Your task to perform on an android device: What is the average speed of a car? Image 0: 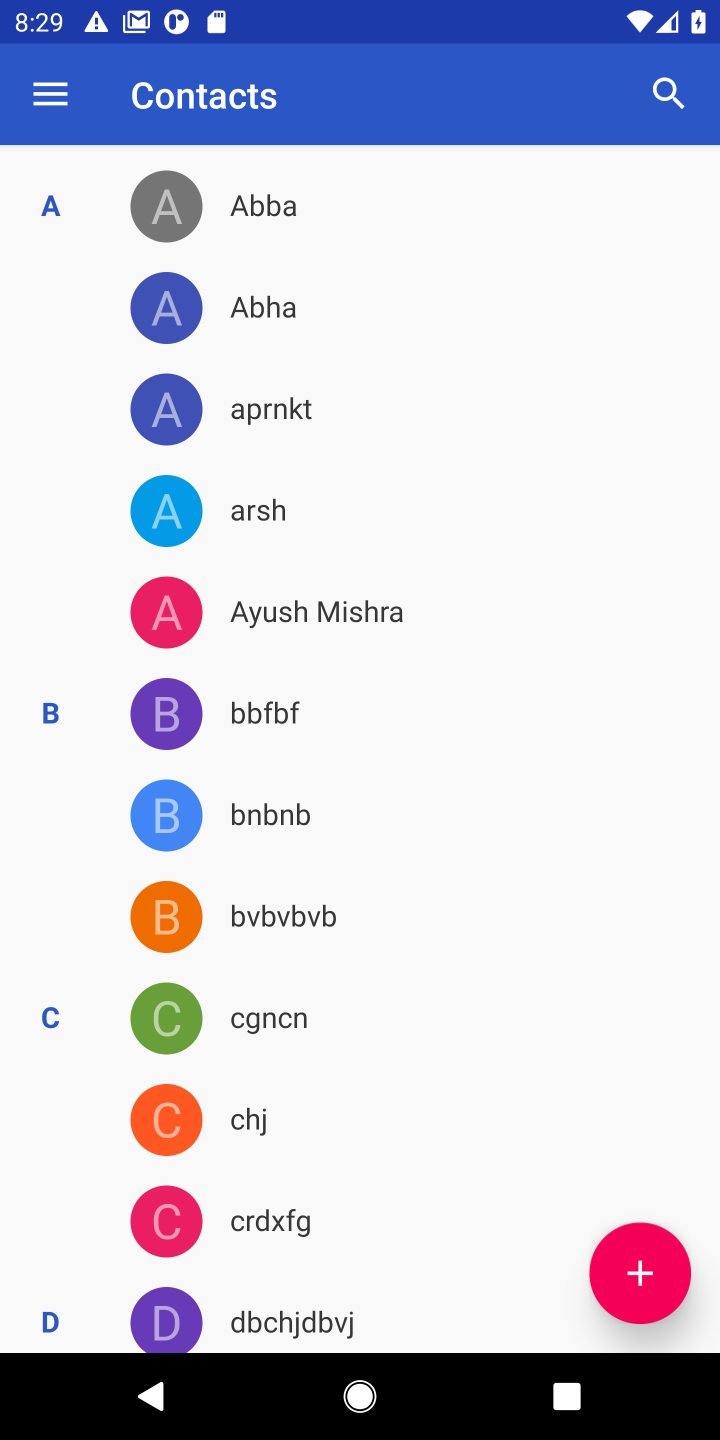
Step 0: press home button
Your task to perform on an android device: What is the average speed of a car? Image 1: 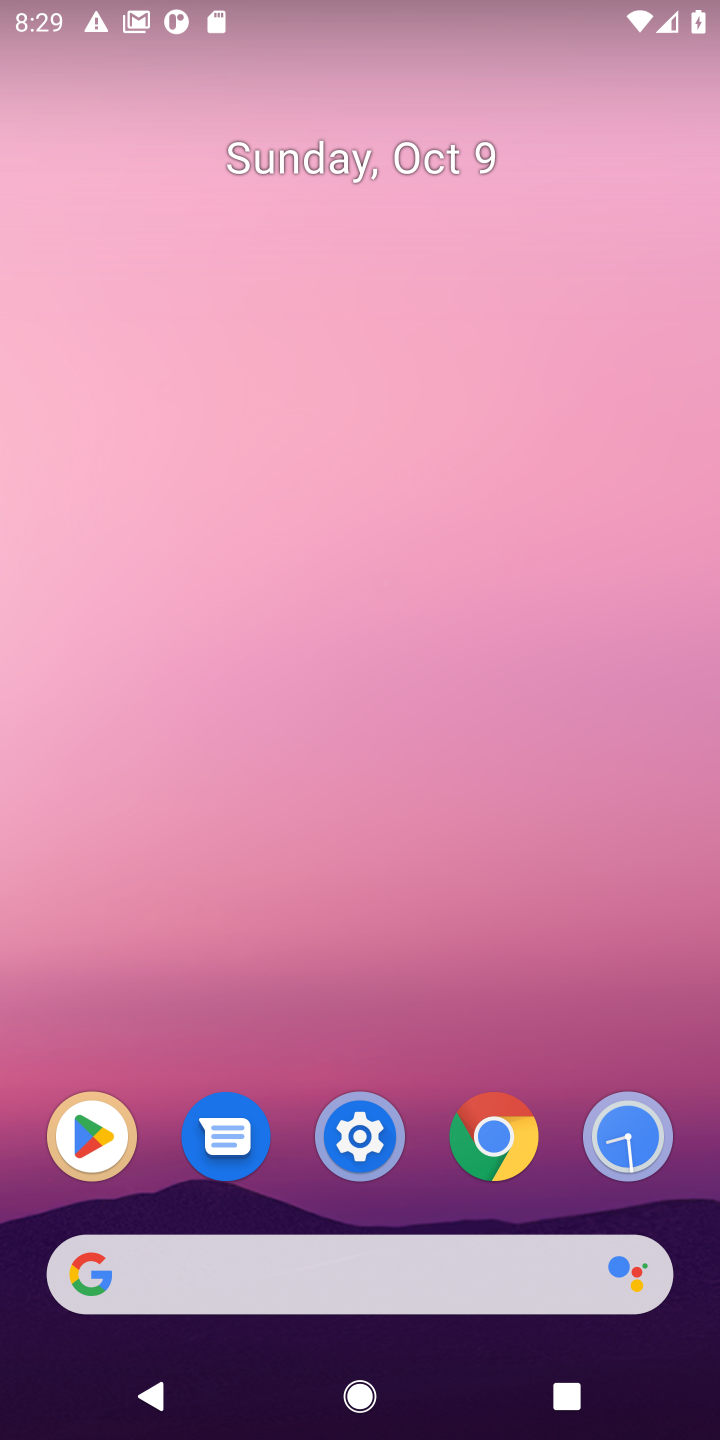
Step 1: click (306, 1291)
Your task to perform on an android device: What is the average speed of a car? Image 2: 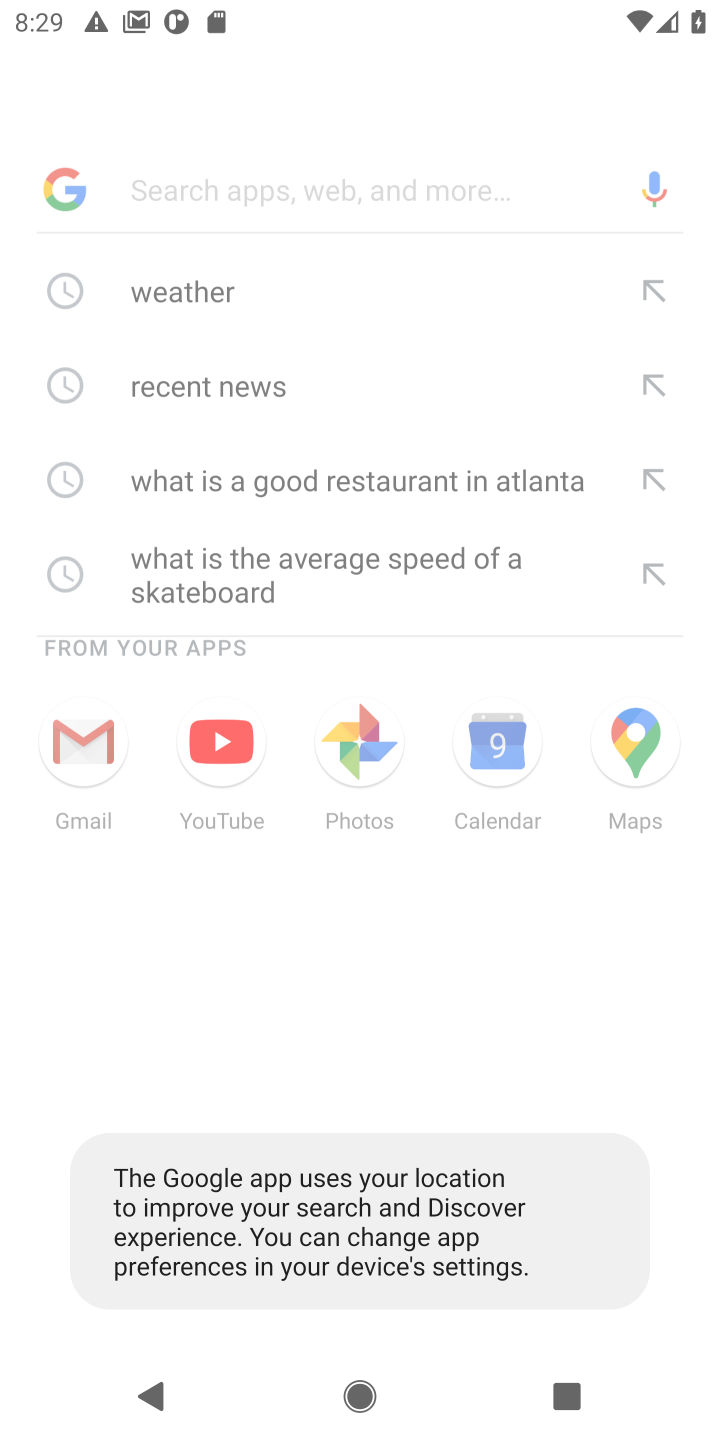
Step 2: type "What is the average speed of a car?"
Your task to perform on an android device: What is the average speed of a car? Image 3: 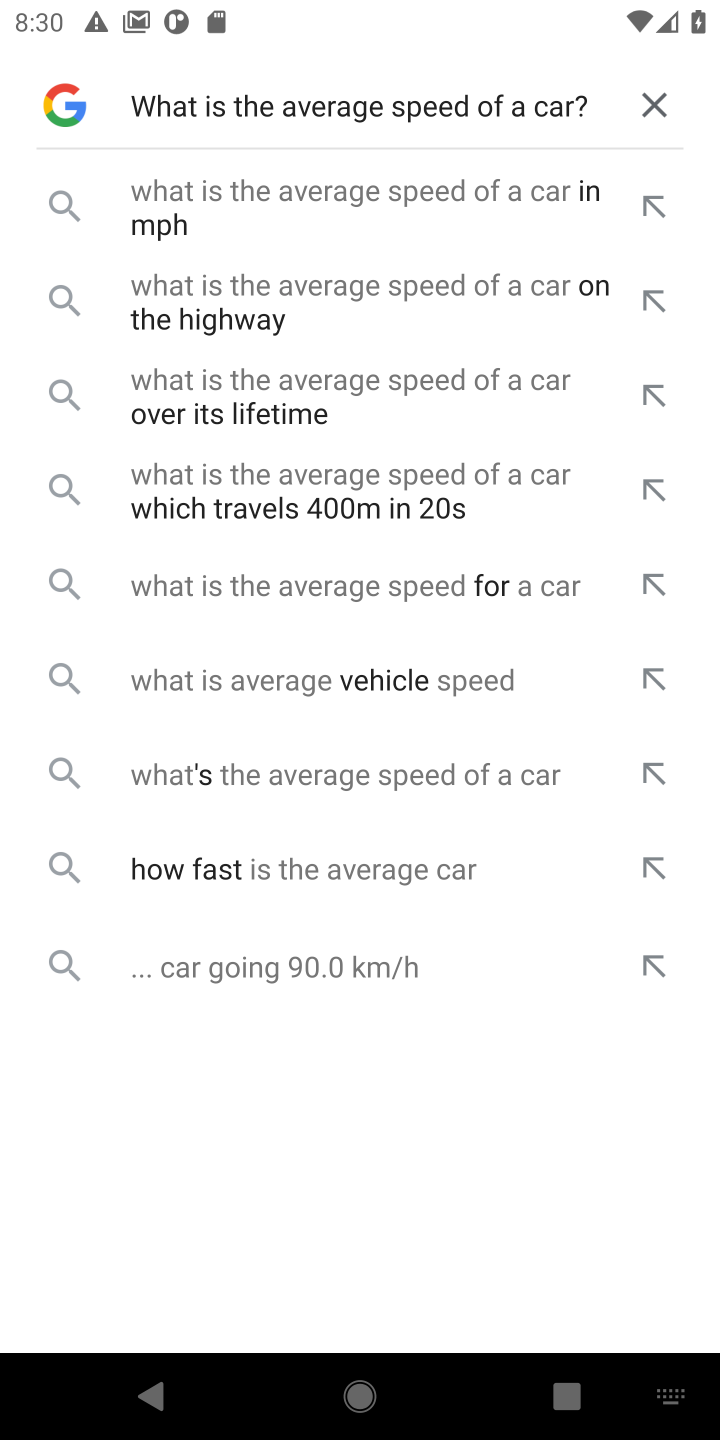
Step 3: click (284, 217)
Your task to perform on an android device: What is the average speed of a car? Image 4: 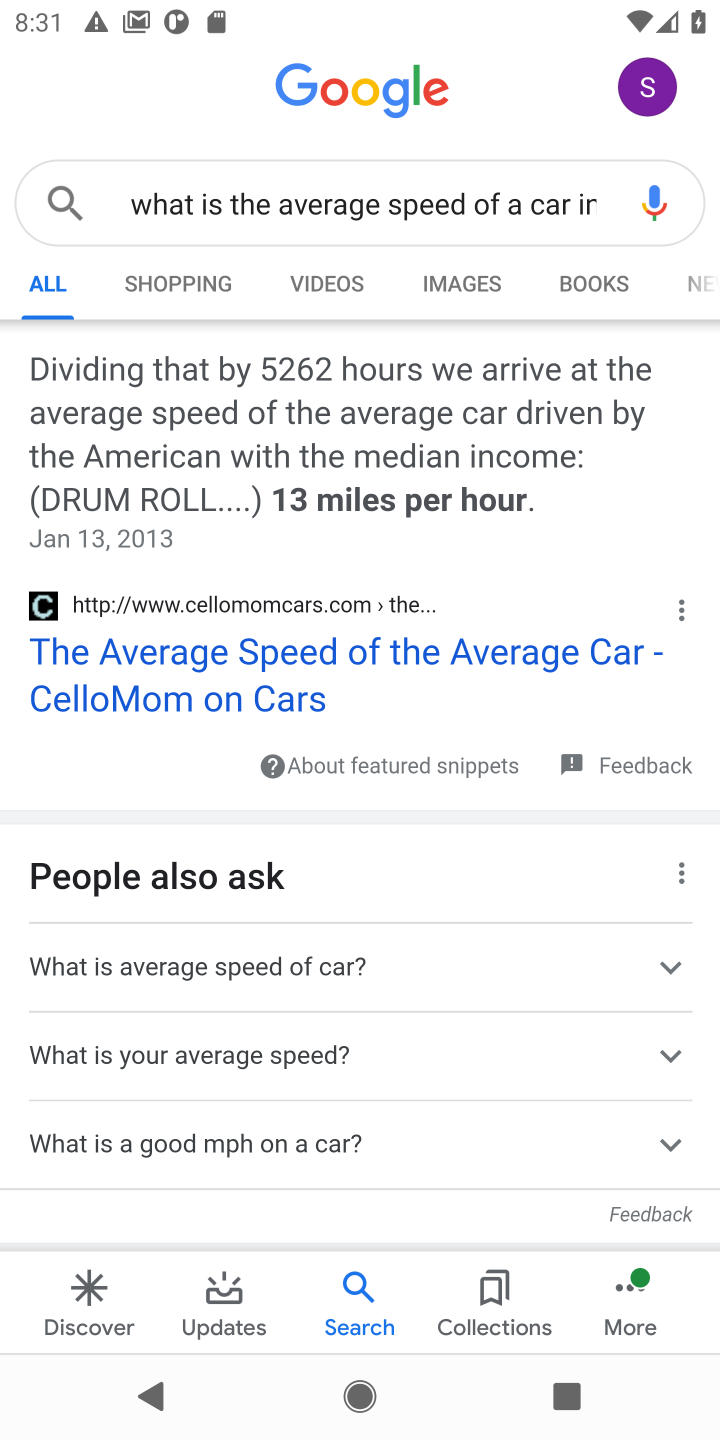
Step 4: task complete